Your task to perform on an android device: Do I have any events tomorrow? Image 0: 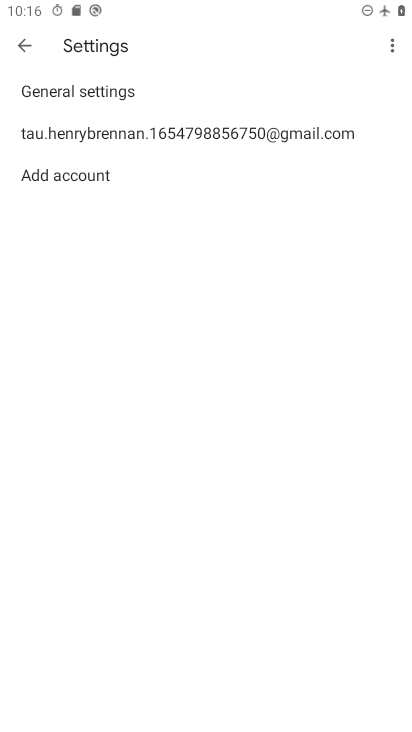
Step 0: press home button
Your task to perform on an android device: Do I have any events tomorrow? Image 1: 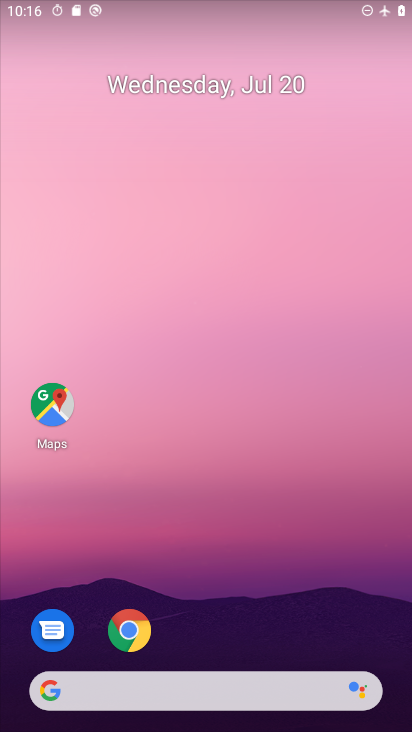
Step 1: drag from (252, 690) to (237, 43)
Your task to perform on an android device: Do I have any events tomorrow? Image 2: 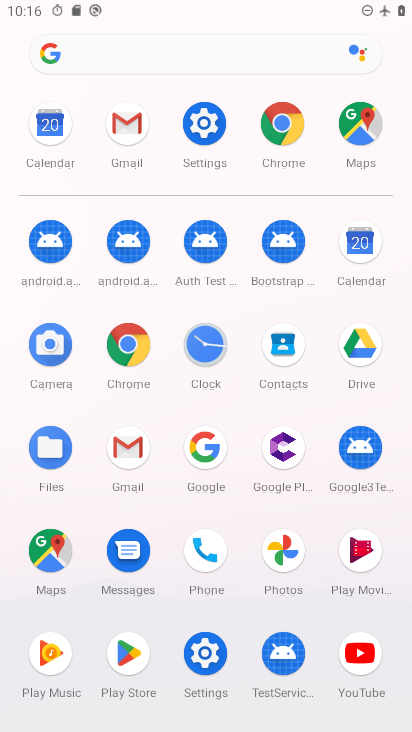
Step 2: click (367, 248)
Your task to perform on an android device: Do I have any events tomorrow? Image 3: 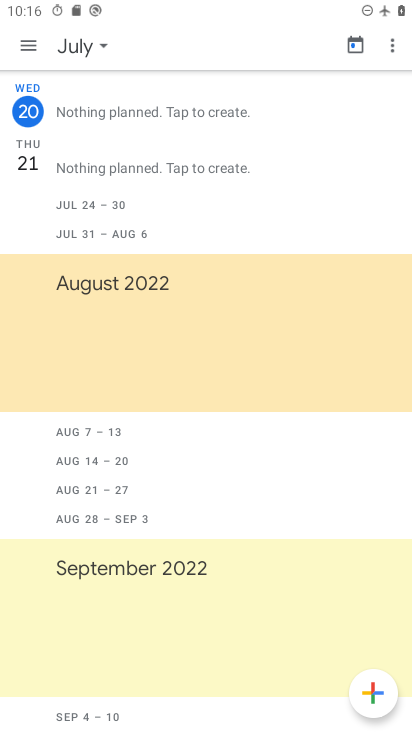
Step 3: task complete